Your task to perform on an android device: Open sound settings Image 0: 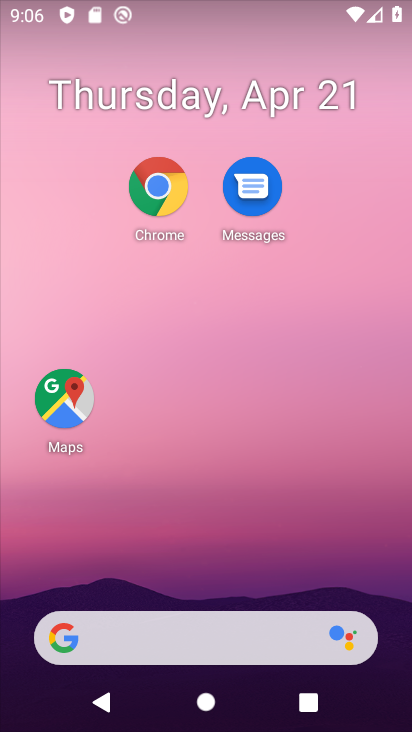
Step 0: drag from (191, 574) to (222, 41)
Your task to perform on an android device: Open sound settings Image 1: 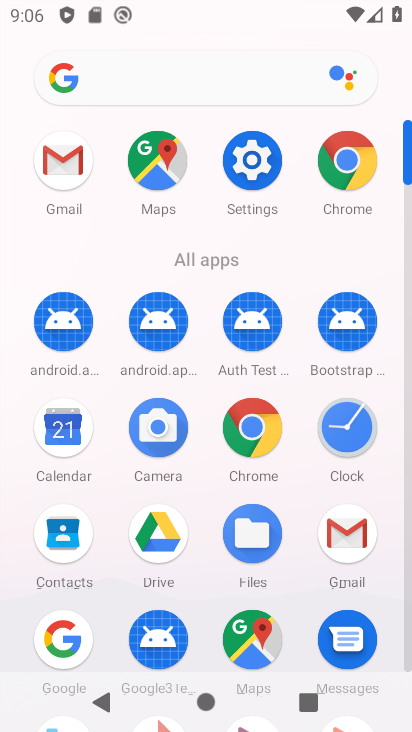
Step 1: click (254, 166)
Your task to perform on an android device: Open sound settings Image 2: 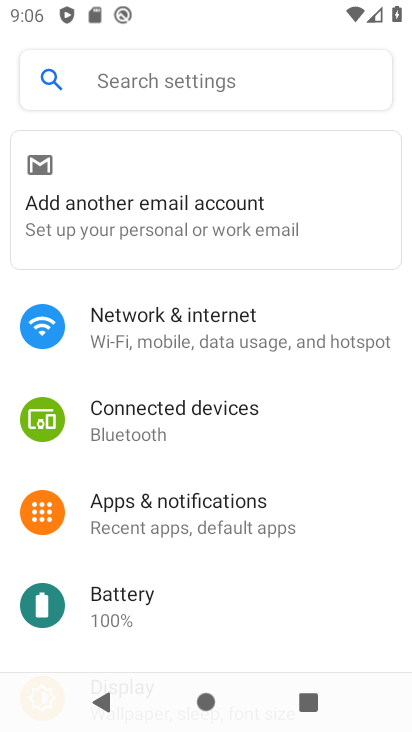
Step 2: drag from (185, 583) to (221, 112)
Your task to perform on an android device: Open sound settings Image 3: 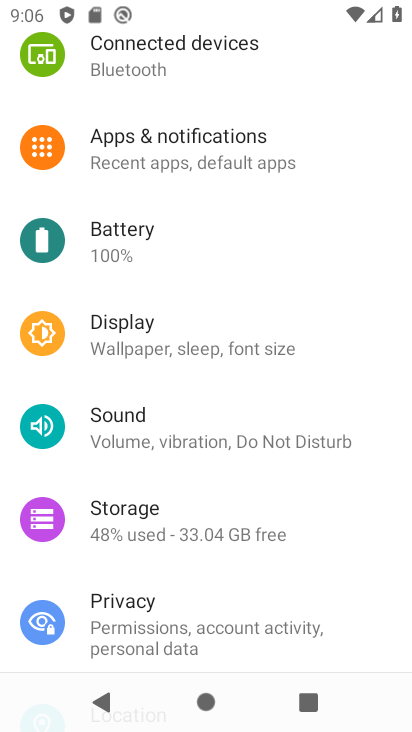
Step 3: click (159, 419)
Your task to perform on an android device: Open sound settings Image 4: 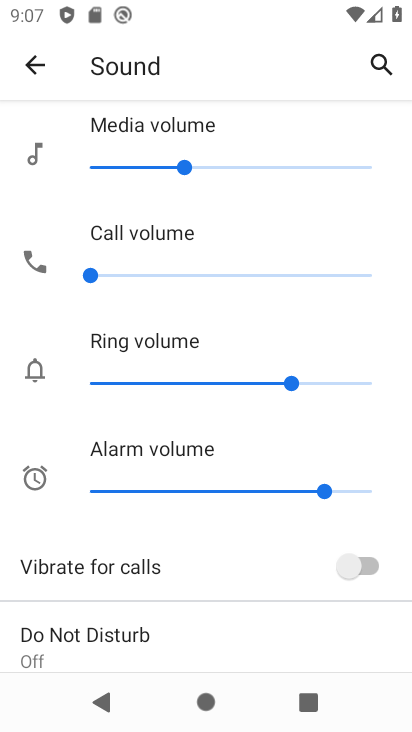
Step 4: click (159, 419)
Your task to perform on an android device: Open sound settings Image 5: 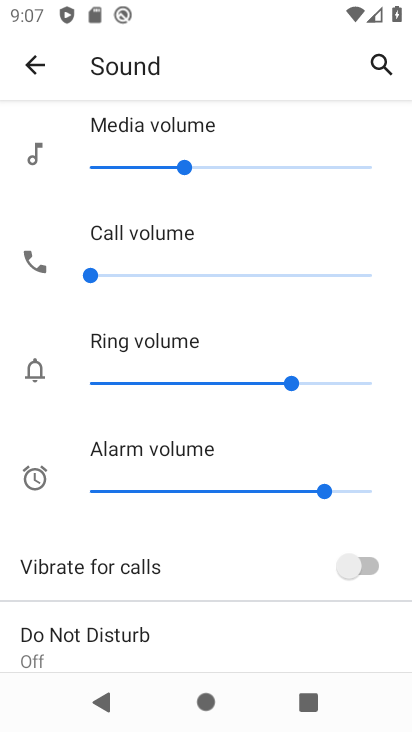
Step 5: task complete